Your task to perform on an android device: search for starred emails in the gmail app Image 0: 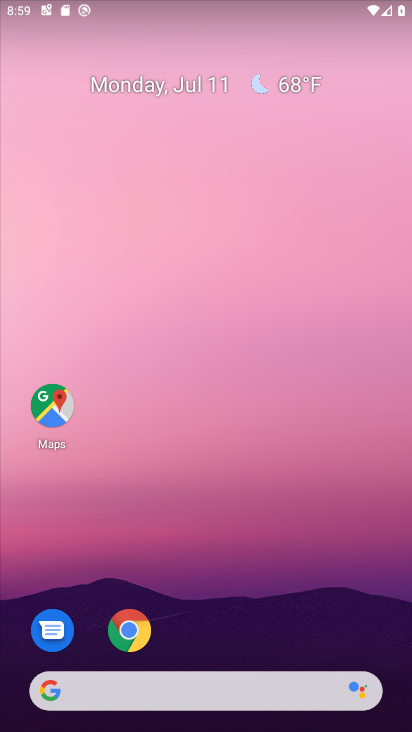
Step 0: drag from (186, 616) to (194, 14)
Your task to perform on an android device: search for starred emails in the gmail app Image 1: 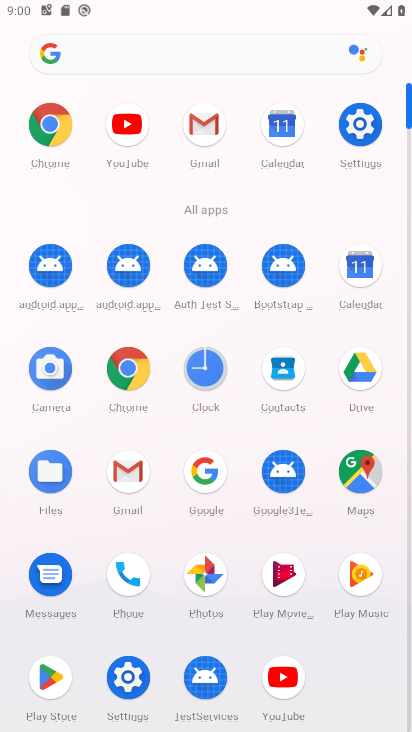
Step 1: click (121, 471)
Your task to perform on an android device: search for starred emails in the gmail app Image 2: 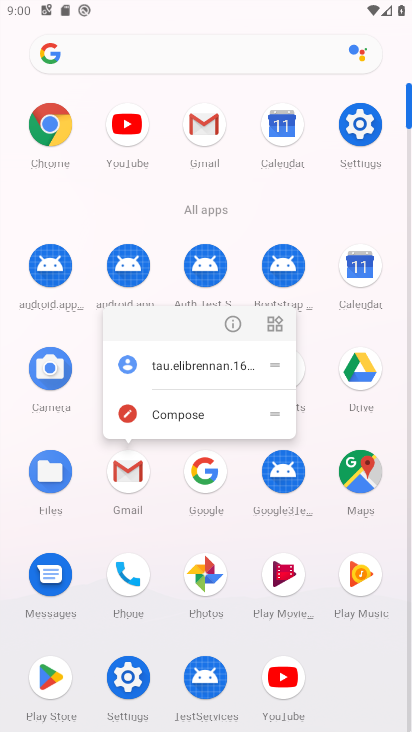
Step 2: click (123, 478)
Your task to perform on an android device: search for starred emails in the gmail app Image 3: 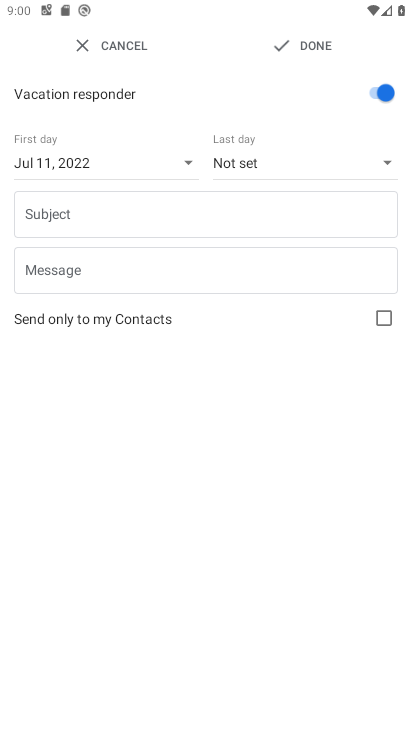
Step 3: press home button
Your task to perform on an android device: search for starred emails in the gmail app Image 4: 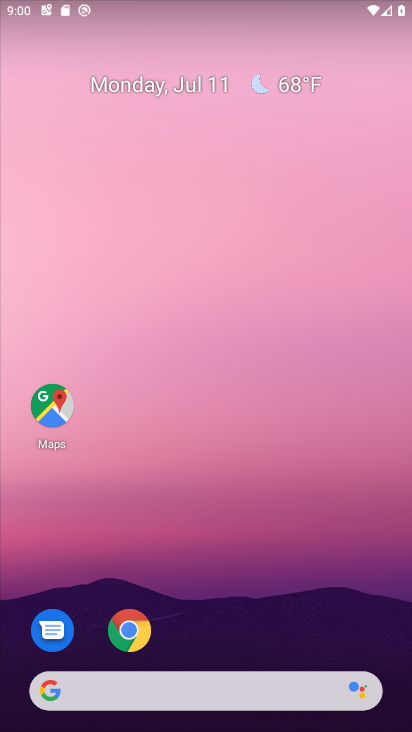
Step 4: drag from (229, 657) to (170, 13)
Your task to perform on an android device: search for starred emails in the gmail app Image 5: 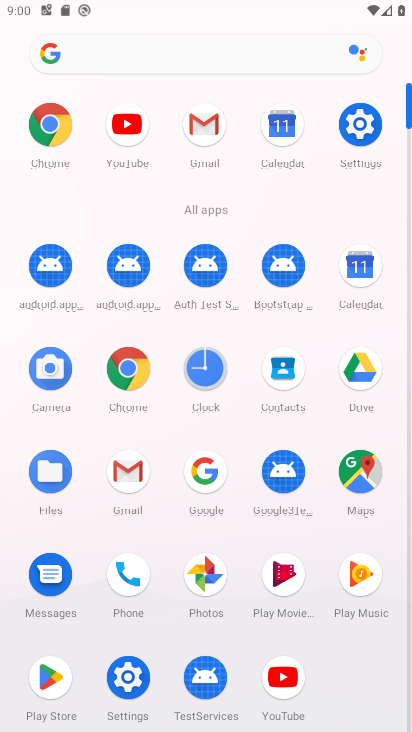
Step 5: click (122, 472)
Your task to perform on an android device: search for starred emails in the gmail app Image 6: 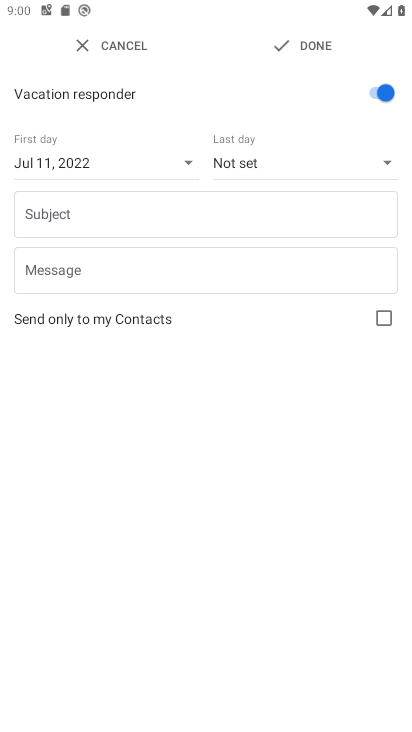
Step 6: click (85, 46)
Your task to perform on an android device: search for starred emails in the gmail app Image 7: 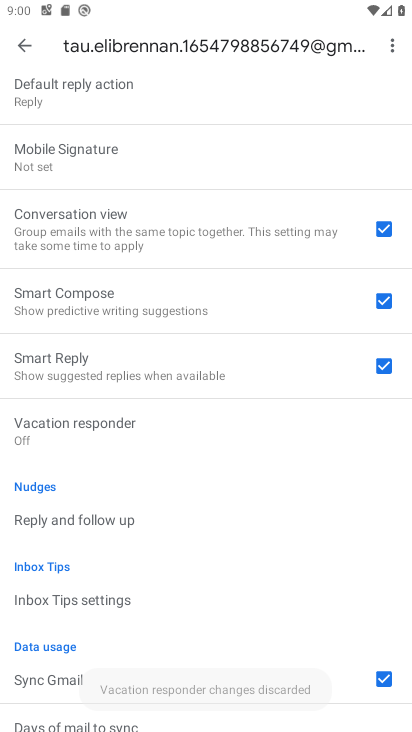
Step 7: click (21, 40)
Your task to perform on an android device: search for starred emails in the gmail app Image 8: 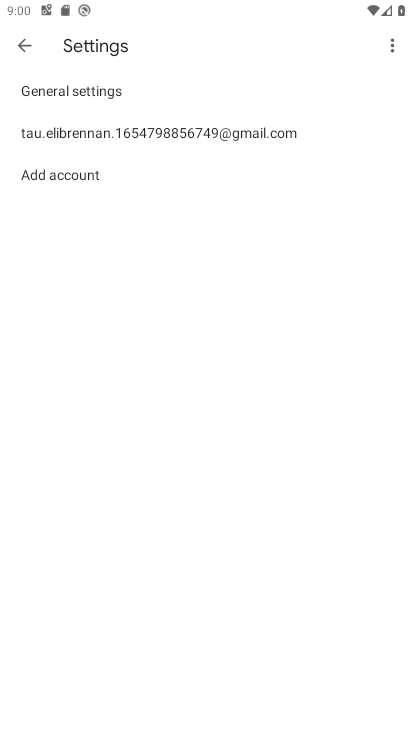
Step 8: click (20, 44)
Your task to perform on an android device: search for starred emails in the gmail app Image 9: 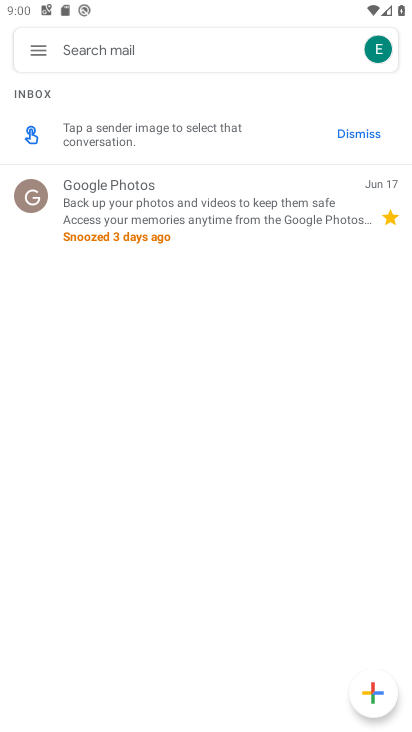
Step 9: click (46, 45)
Your task to perform on an android device: search for starred emails in the gmail app Image 10: 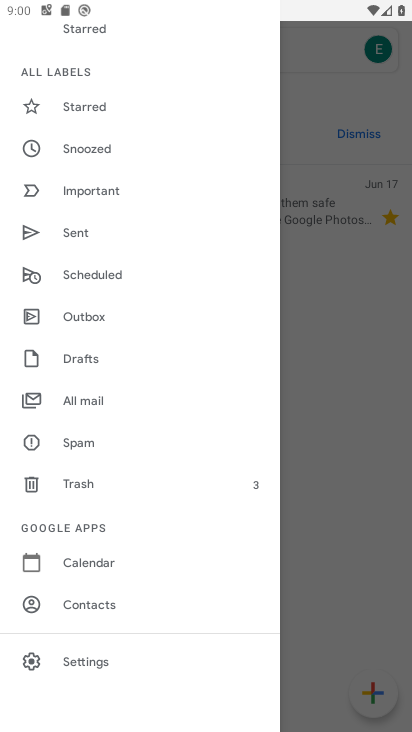
Step 10: click (108, 107)
Your task to perform on an android device: search for starred emails in the gmail app Image 11: 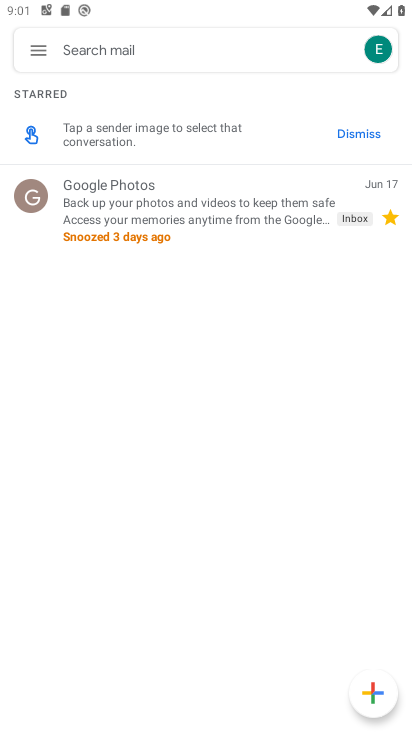
Step 11: task complete